Your task to perform on an android device: allow notifications from all sites in the chrome app Image 0: 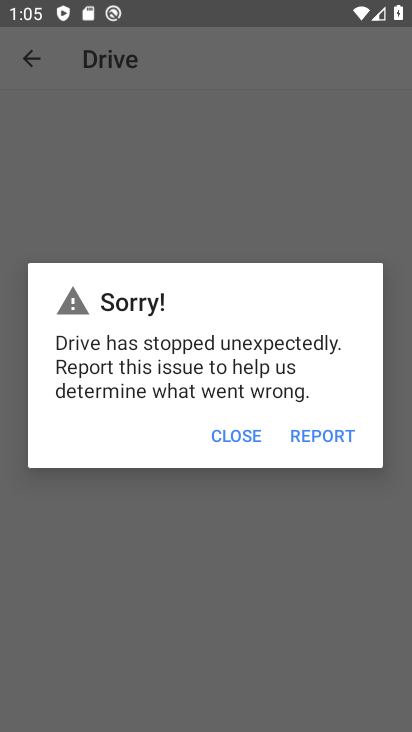
Step 0: press home button
Your task to perform on an android device: allow notifications from all sites in the chrome app Image 1: 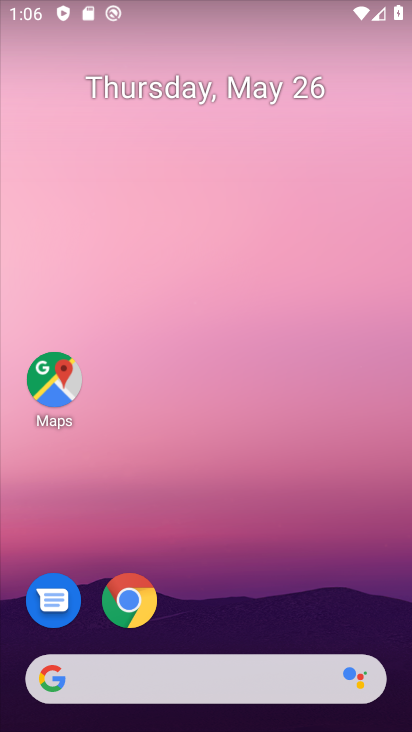
Step 1: drag from (231, 578) to (208, 245)
Your task to perform on an android device: allow notifications from all sites in the chrome app Image 2: 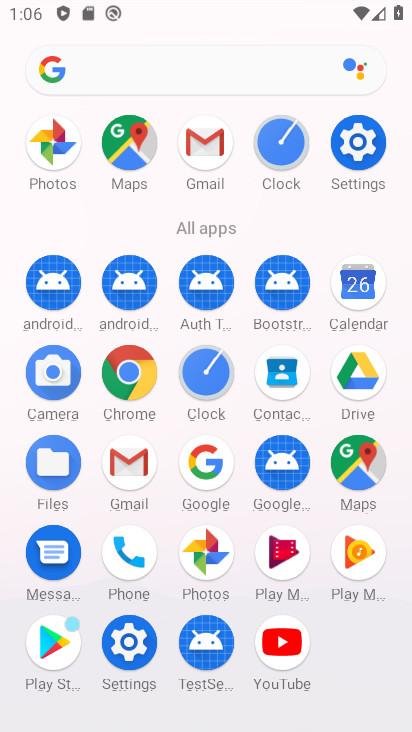
Step 2: click (139, 384)
Your task to perform on an android device: allow notifications from all sites in the chrome app Image 3: 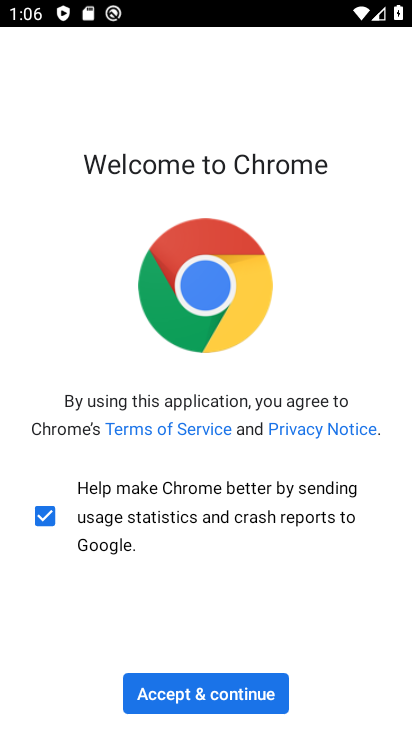
Step 3: click (164, 694)
Your task to perform on an android device: allow notifications from all sites in the chrome app Image 4: 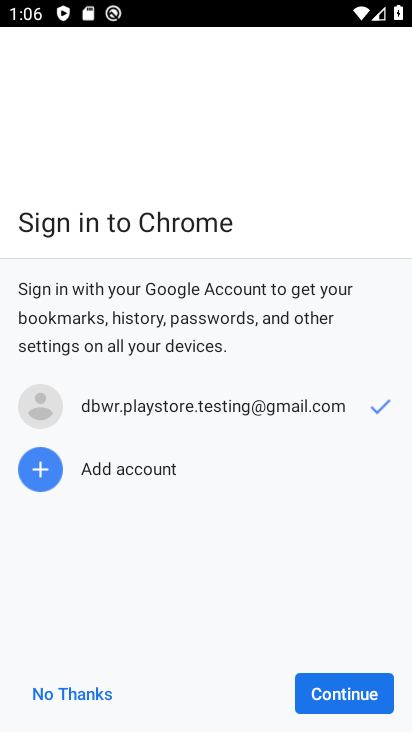
Step 4: click (342, 684)
Your task to perform on an android device: allow notifications from all sites in the chrome app Image 5: 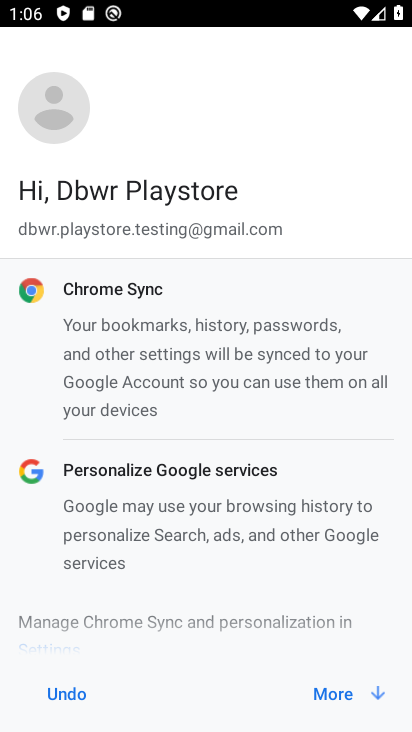
Step 5: click (342, 684)
Your task to perform on an android device: allow notifications from all sites in the chrome app Image 6: 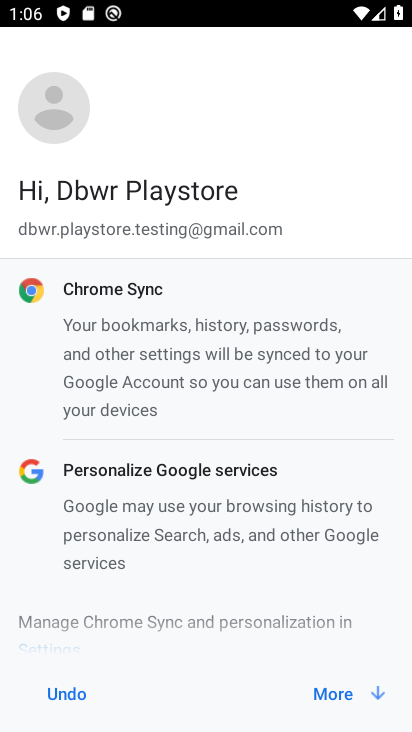
Step 6: click (342, 684)
Your task to perform on an android device: allow notifications from all sites in the chrome app Image 7: 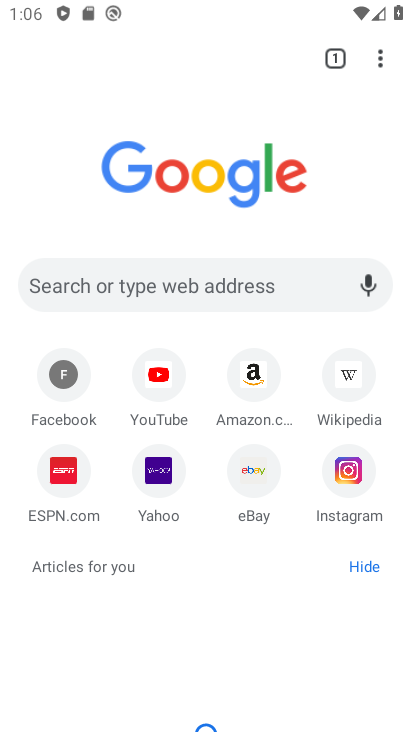
Step 7: click (375, 51)
Your task to perform on an android device: allow notifications from all sites in the chrome app Image 8: 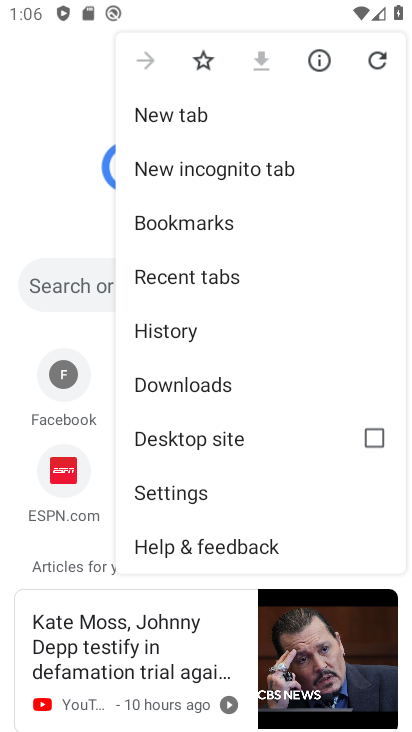
Step 8: click (133, 477)
Your task to perform on an android device: allow notifications from all sites in the chrome app Image 9: 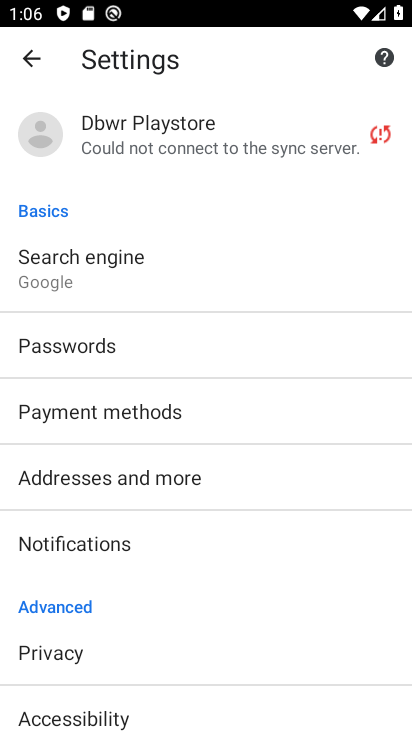
Step 9: drag from (166, 653) to (182, 340)
Your task to perform on an android device: allow notifications from all sites in the chrome app Image 10: 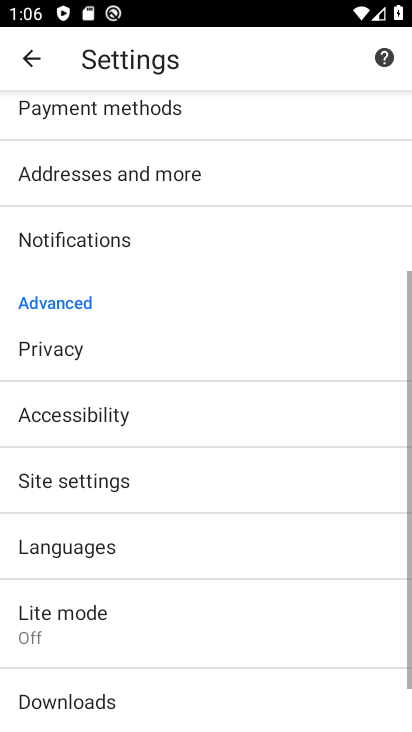
Step 10: drag from (145, 639) to (163, 223)
Your task to perform on an android device: allow notifications from all sites in the chrome app Image 11: 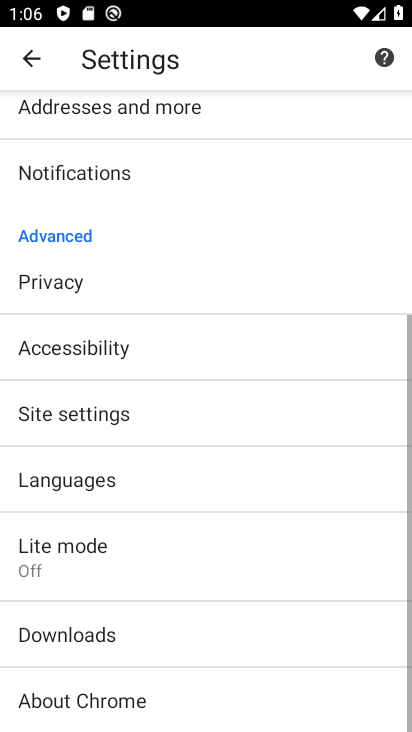
Step 11: drag from (172, 163) to (234, 587)
Your task to perform on an android device: allow notifications from all sites in the chrome app Image 12: 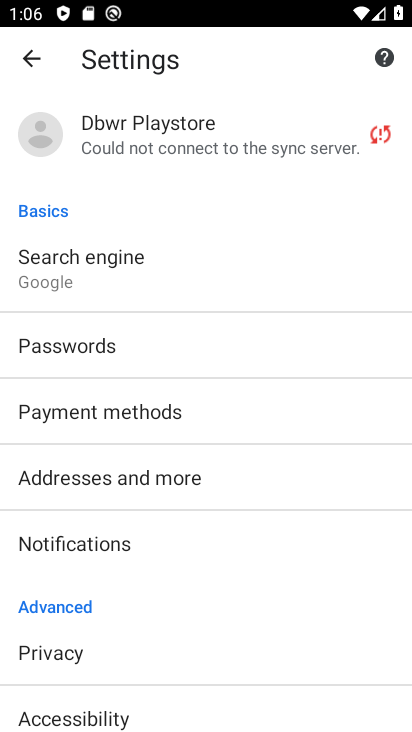
Step 12: click (224, 537)
Your task to perform on an android device: allow notifications from all sites in the chrome app Image 13: 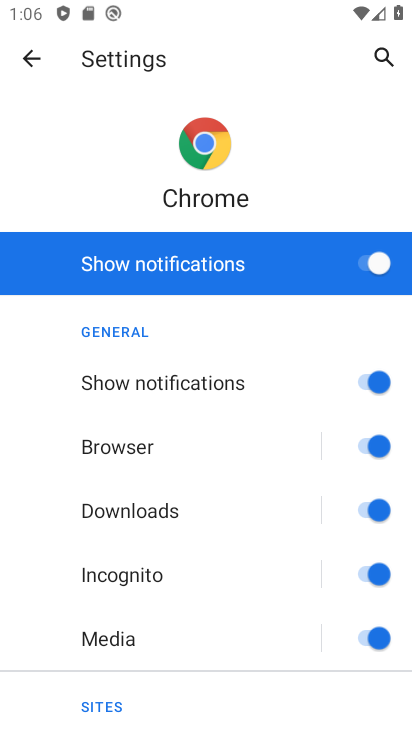
Step 13: drag from (247, 596) to (237, 287)
Your task to perform on an android device: allow notifications from all sites in the chrome app Image 14: 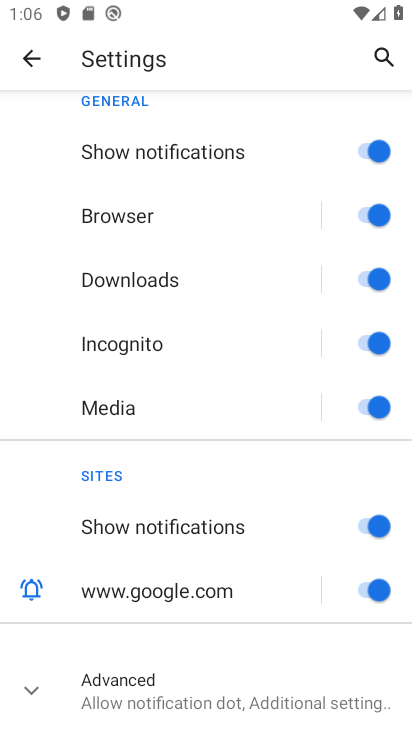
Step 14: click (173, 690)
Your task to perform on an android device: allow notifications from all sites in the chrome app Image 15: 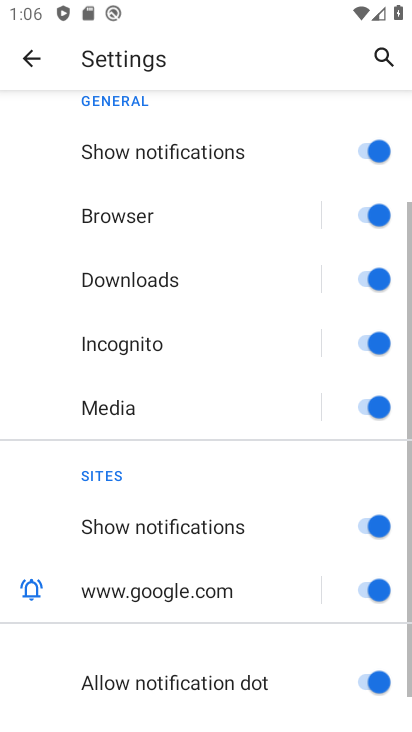
Step 15: task complete